Your task to perform on an android device: change the clock display to digital Image 0: 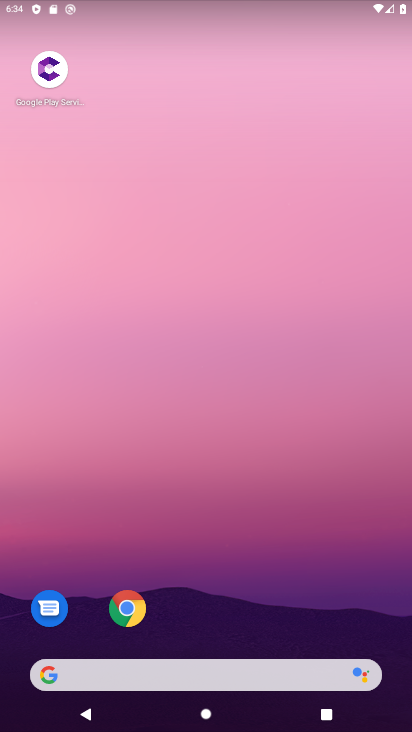
Step 0: drag from (353, 558) to (245, 93)
Your task to perform on an android device: change the clock display to digital Image 1: 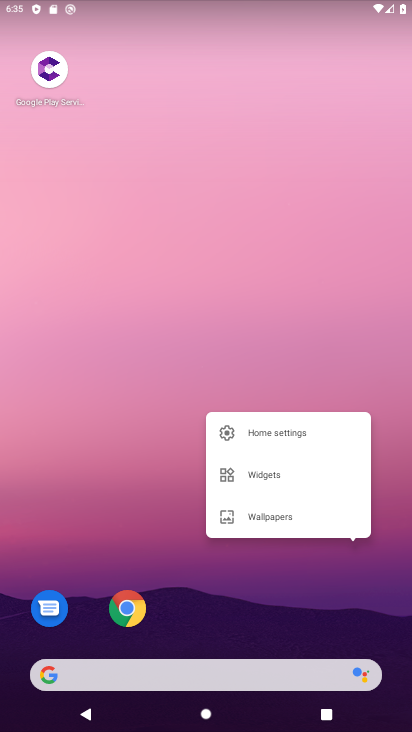
Step 1: click (109, 359)
Your task to perform on an android device: change the clock display to digital Image 2: 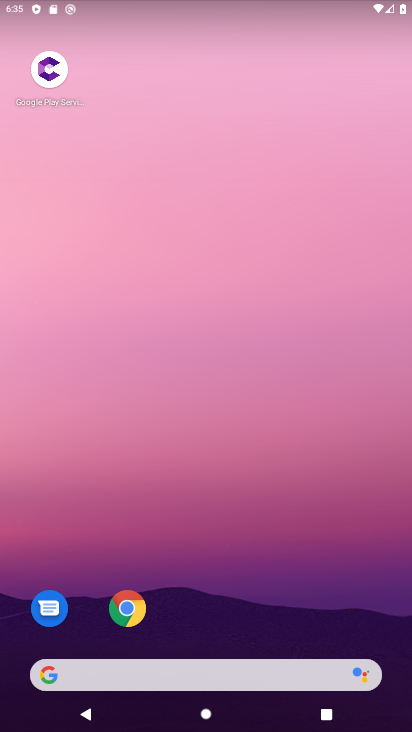
Step 2: drag from (109, 359) to (166, 75)
Your task to perform on an android device: change the clock display to digital Image 3: 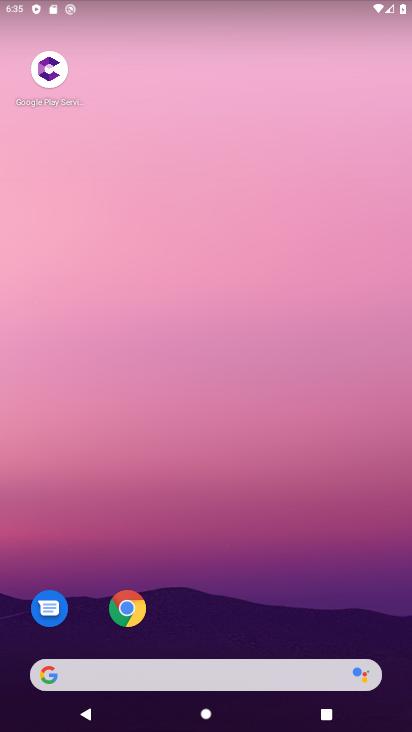
Step 3: drag from (239, 604) to (310, 3)
Your task to perform on an android device: change the clock display to digital Image 4: 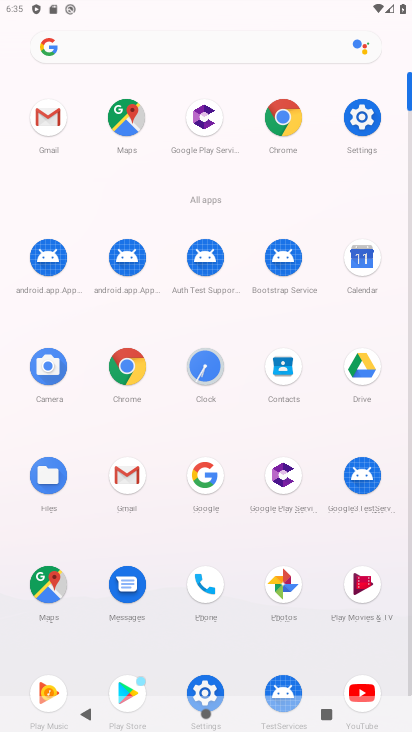
Step 4: click (193, 396)
Your task to perform on an android device: change the clock display to digital Image 5: 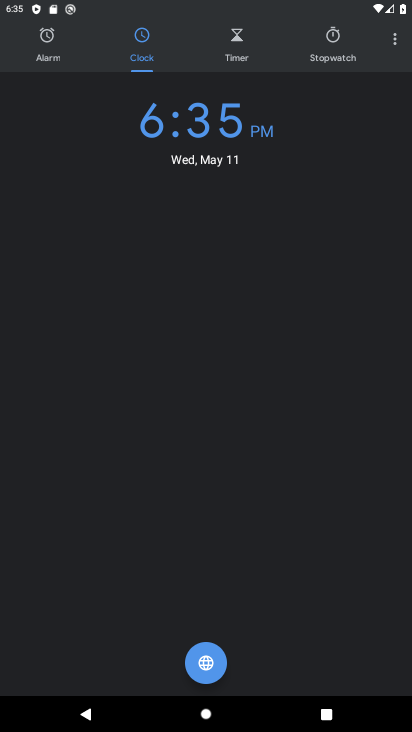
Step 5: click (392, 44)
Your task to perform on an android device: change the clock display to digital Image 6: 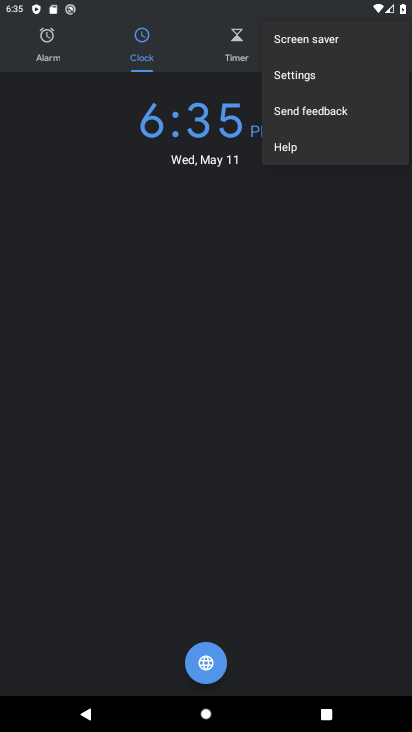
Step 6: click (358, 74)
Your task to perform on an android device: change the clock display to digital Image 7: 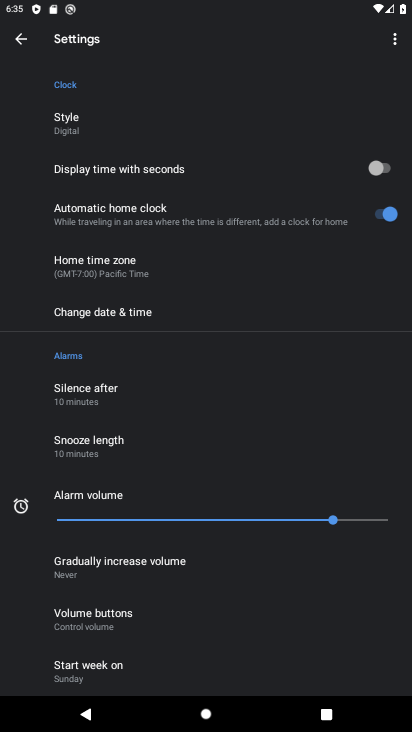
Step 7: click (159, 117)
Your task to perform on an android device: change the clock display to digital Image 8: 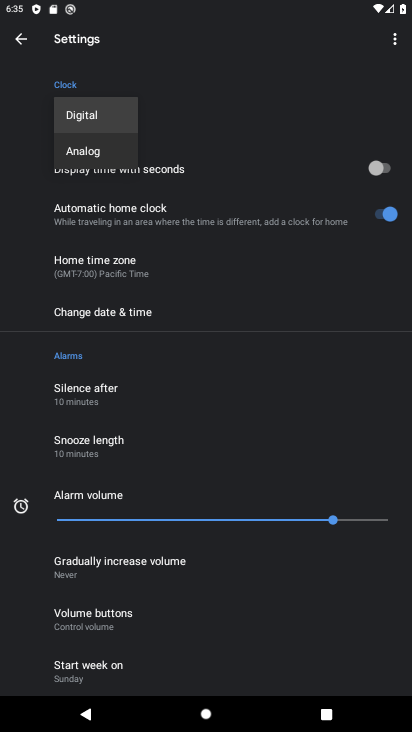
Step 8: task complete